Your task to perform on an android device: manage bookmarks in the chrome app Image 0: 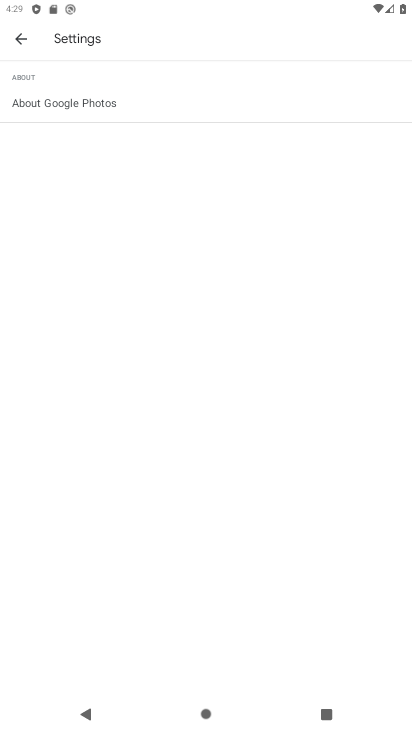
Step 0: press back button
Your task to perform on an android device: manage bookmarks in the chrome app Image 1: 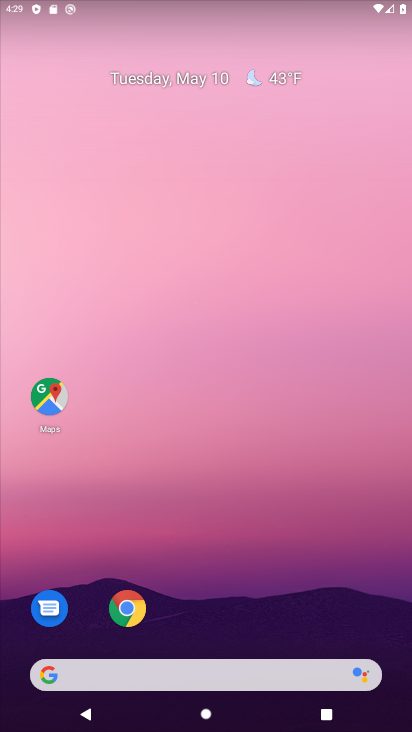
Step 1: click (133, 610)
Your task to perform on an android device: manage bookmarks in the chrome app Image 2: 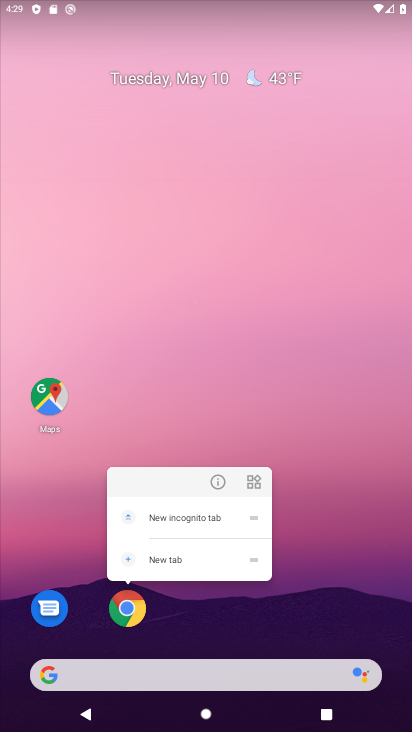
Step 2: click (132, 609)
Your task to perform on an android device: manage bookmarks in the chrome app Image 3: 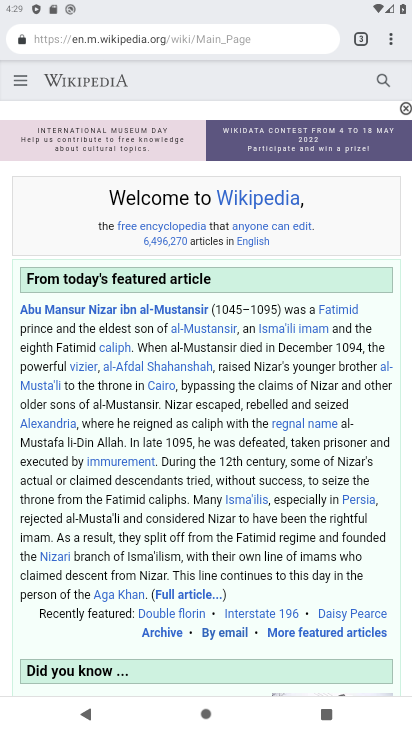
Step 3: task complete